Your task to perform on an android device: search for starred emails in the gmail app Image 0: 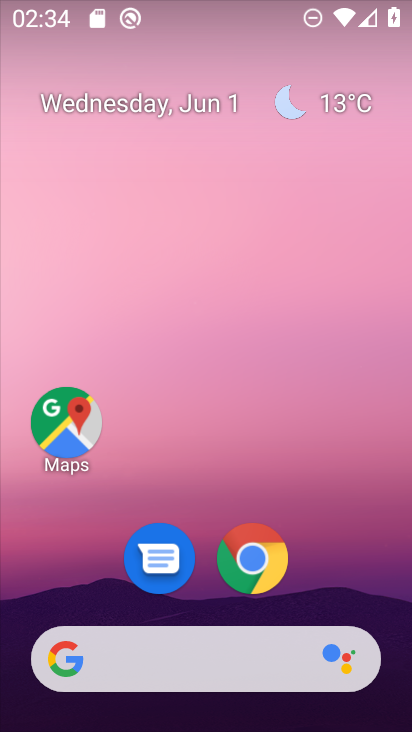
Step 0: drag from (390, 697) to (356, 168)
Your task to perform on an android device: search for starred emails in the gmail app Image 1: 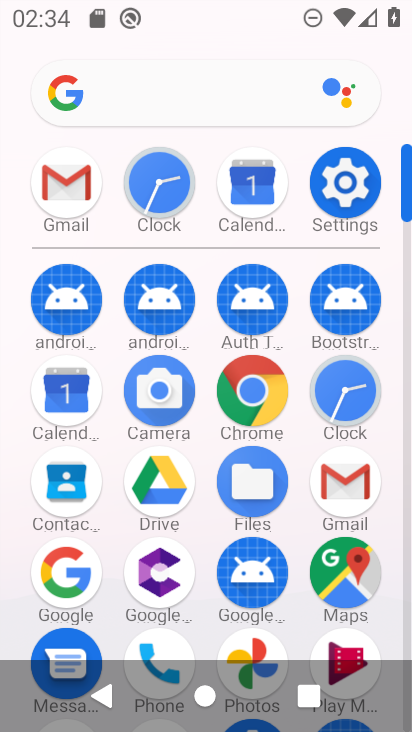
Step 1: click (335, 468)
Your task to perform on an android device: search for starred emails in the gmail app Image 2: 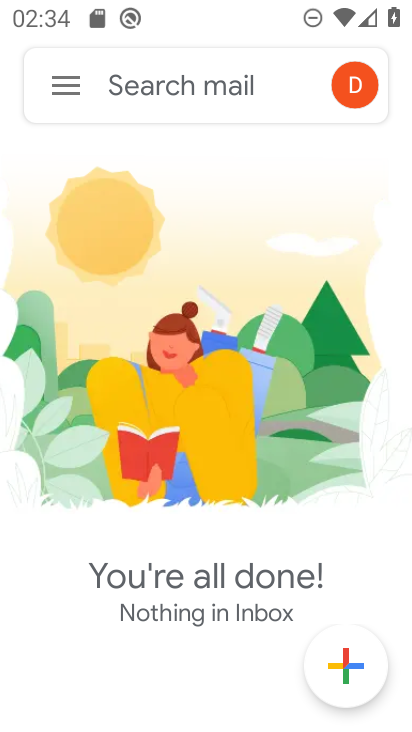
Step 2: click (49, 83)
Your task to perform on an android device: search for starred emails in the gmail app Image 3: 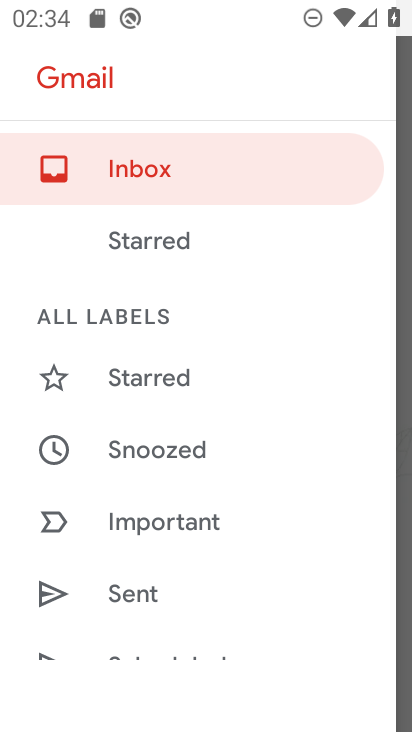
Step 3: drag from (270, 592) to (269, 246)
Your task to perform on an android device: search for starred emails in the gmail app Image 4: 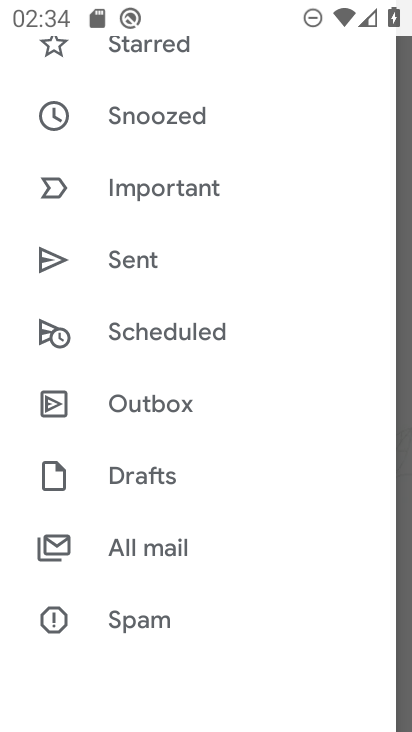
Step 4: click (128, 50)
Your task to perform on an android device: search for starred emails in the gmail app Image 5: 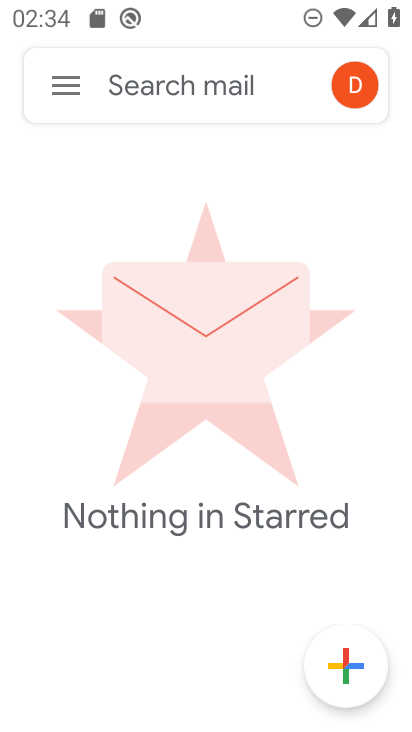
Step 5: task complete